Your task to perform on an android device: open a bookmark in the chrome app Image 0: 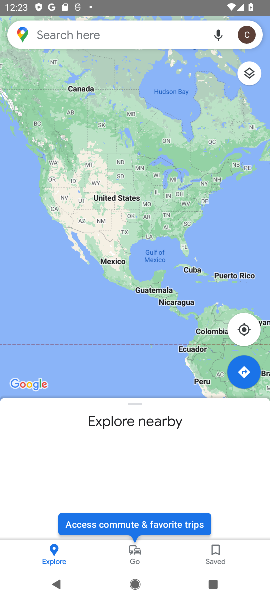
Step 0: press home button
Your task to perform on an android device: open a bookmark in the chrome app Image 1: 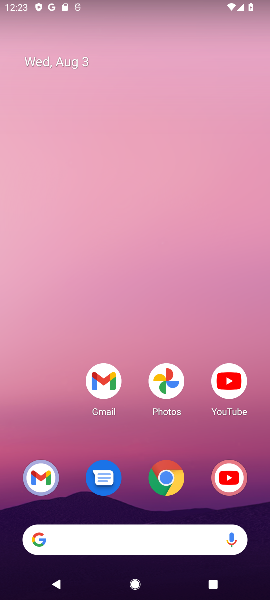
Step 1: click (158, 479)
Your task to perform on an android device: open a bookmark in the chrome app Image 2: 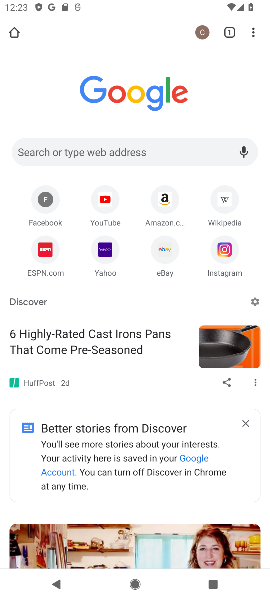
Step 2: click (253, 33)
Your task to perform on an android device: open a bookmark in the chrome app Image 3: 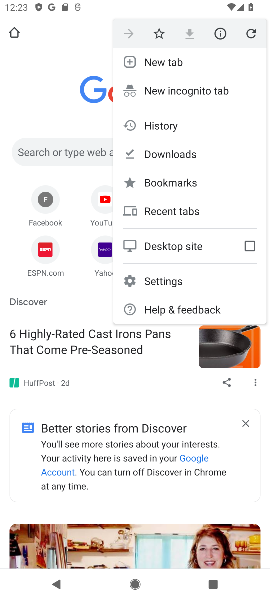
Step 3: click (173, 186)
Your task to perform on an android device: open a bookmark in the chrome app Image 4: 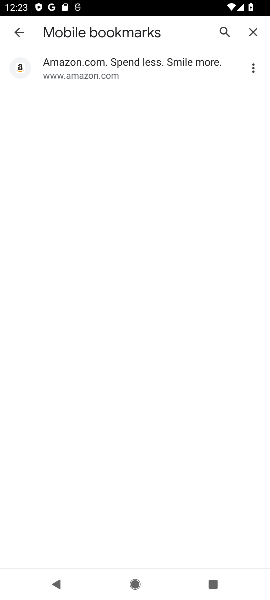
Step 4: click (84, 63)
Your task to perform on an android device: open a bookmark in the chrome app Image 5: 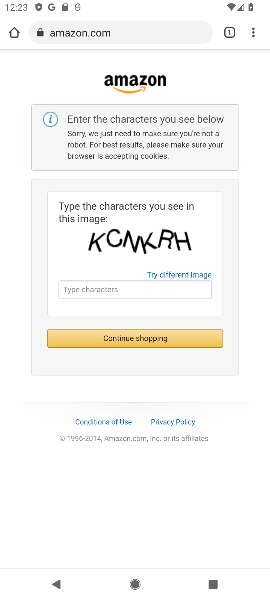
Step 5: task complete